Your task to perform on an android device: Go to Google Image 0: 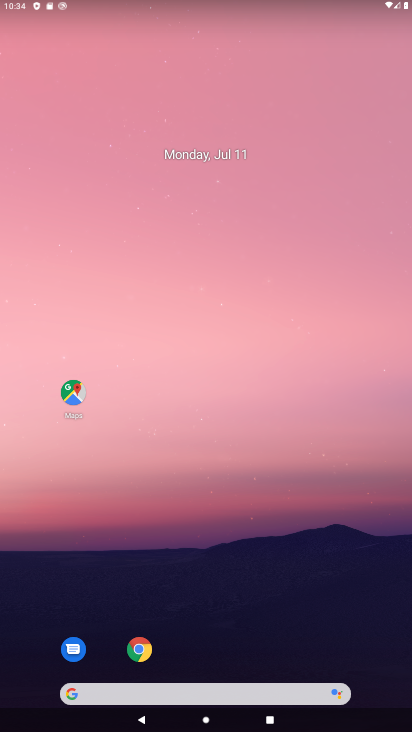
Step 0: drag from (178, 695) to (221, 80)
Your task to perform on an android device: Go to Google Image 1: 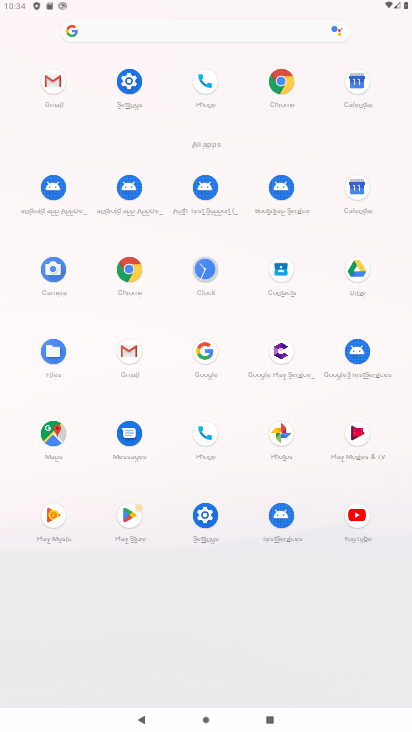
Step 1: click (207, 352)
Your task to perform on an android device: Go to Google Image 2: 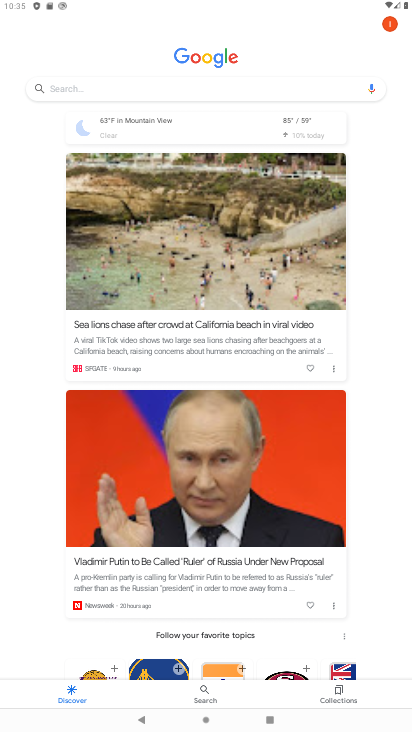
Step 2: task complete